Your task to perform on an android device: change notification settings in the gmail app Image 0: 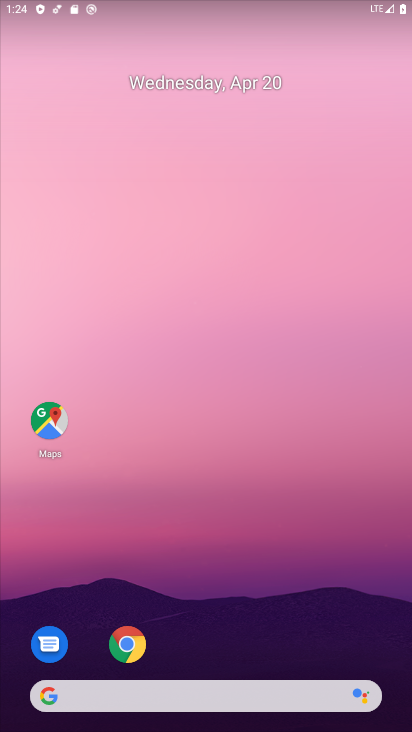
Step 0: drag from (256, 127) to (257, 82)
Your task to perform on an android device: change notification settings in the gmail app Image 1: 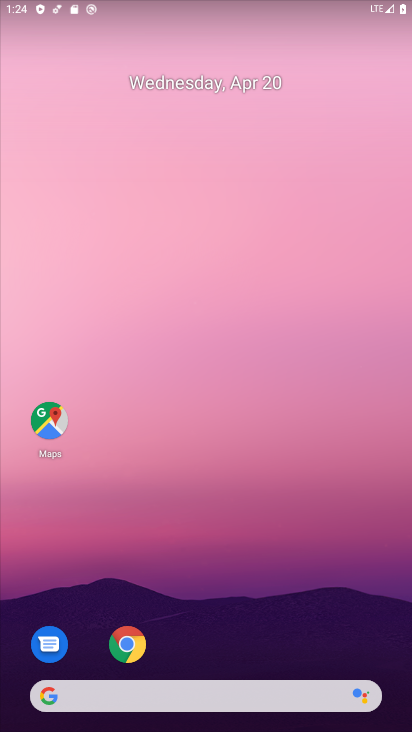
Step 1: drag from (235, 665) to (275, 15)
Your task to perform on an android device: change notification settings in the gmail app Image 2: 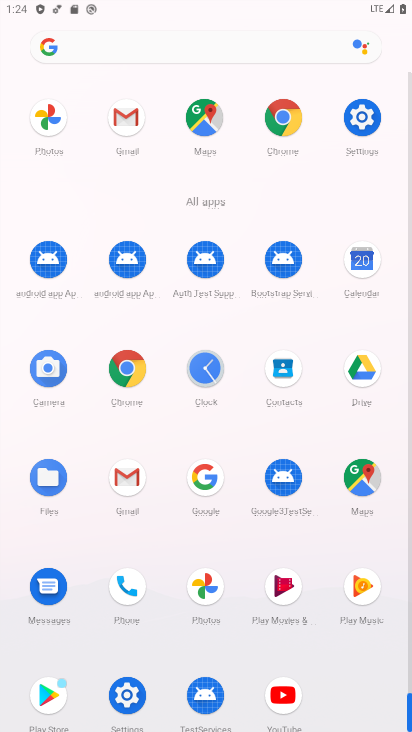
Step 2: click (134, 479)
Your task to perform on an android device: change notification settings in the gmail app Image 3: 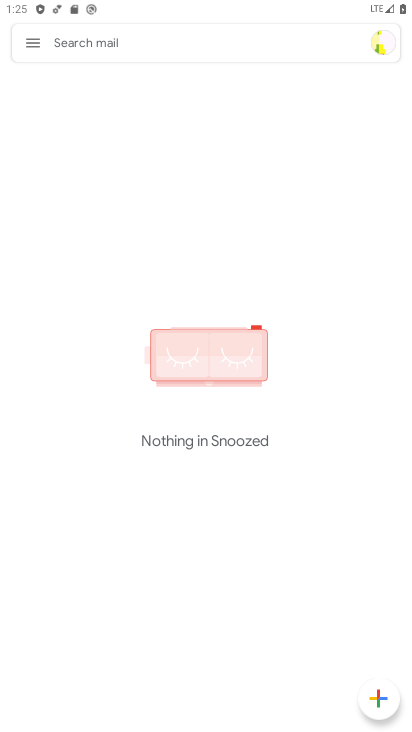
Step 3: click (39, 44)
Your task to perform on an android device: change notification settings in the gmail app Image 4: 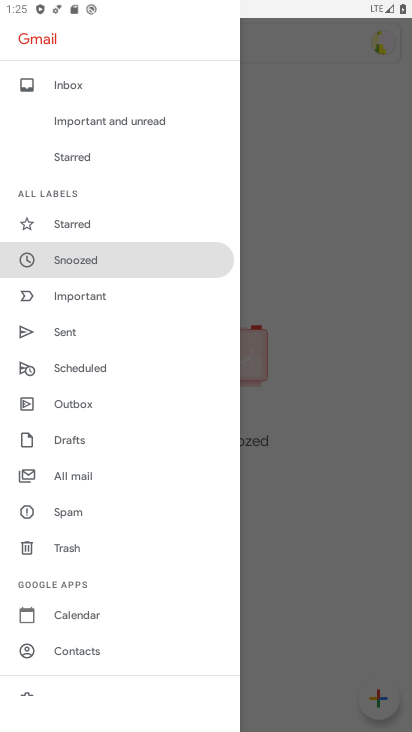
Step 4: drag from (149, 635) to (165, 172)
Your task to perform on an android device: change notification settings in the gmail app Image 5: 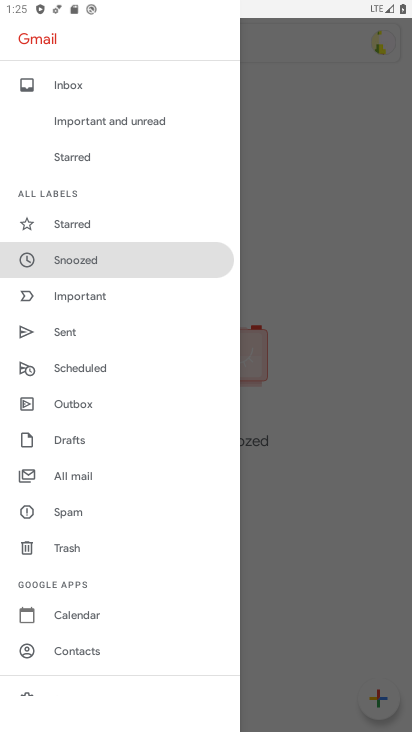
Step 5: drag from (108, 645) to (112, 245)
Your task to perform on an android device: change notification settings in the gmail app Image 6: 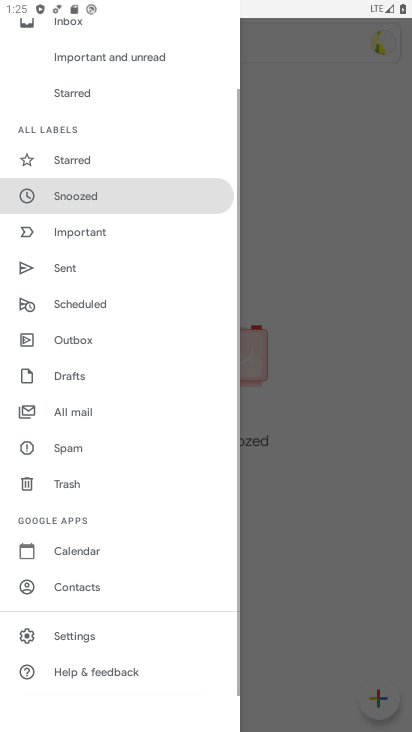
Step 6: click (106, 638)
Your task to perform on an android device: change notification settings in the gmail app Image 7: 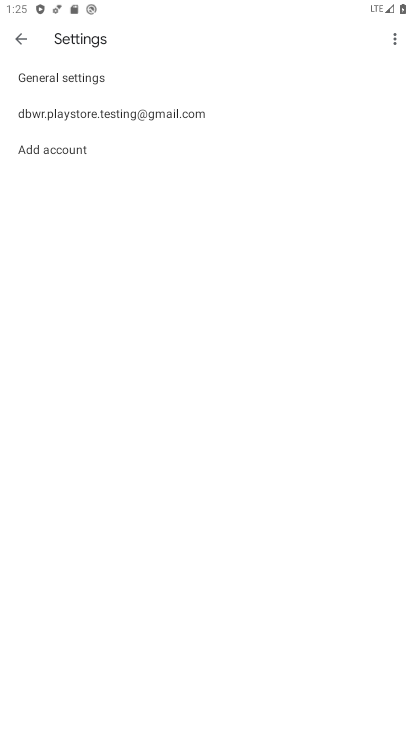
Step 7: click (79, 117)
Your task to perform on an android device: change notification settings in the gmail app Image 8: 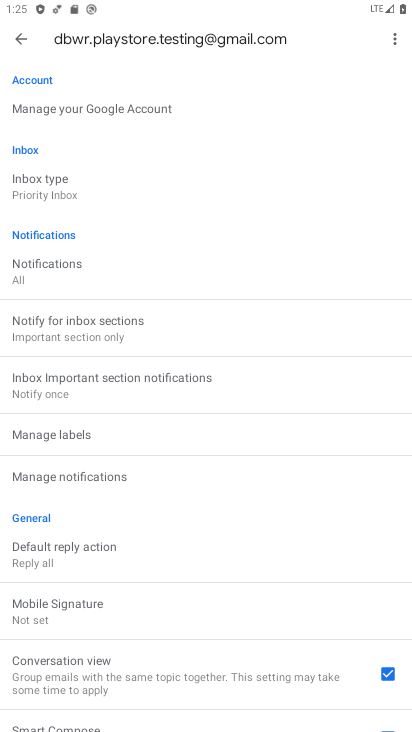
Step 8: click (126, 472)
Your task to perform on an android device: change notification settings in the gmail app Image 9: 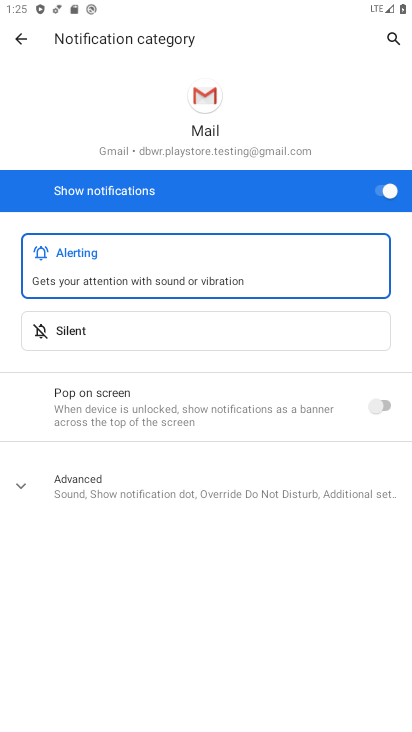
Step 9: click (381, 186)
Your task to perform on an android device: change notification settings in the gmail app Image 10: 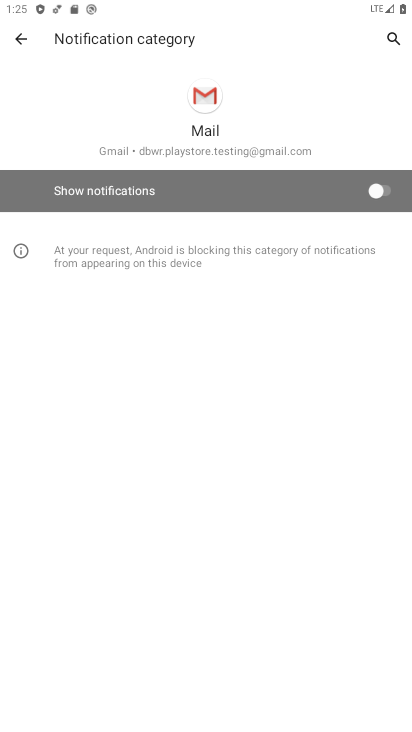
Step 10: task complete